Your task to perform on an android device: Open Google Chrome and click the shortcut for Amazon.com Image 0: 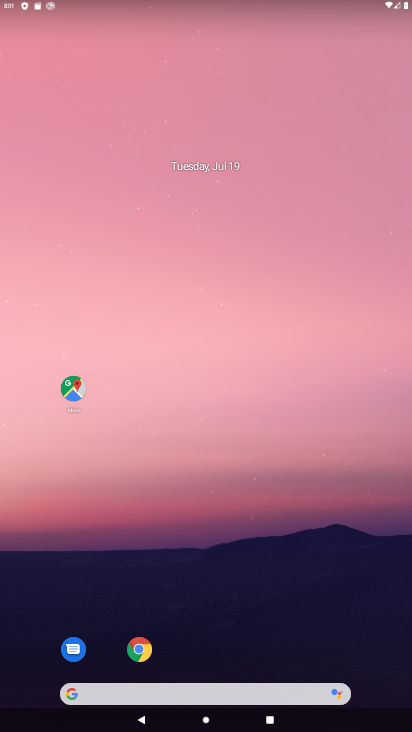
Step 0: press home button
Your task to perform on an android device: Open Google Chrome and click the shortcut for Amazon.com Image 1: 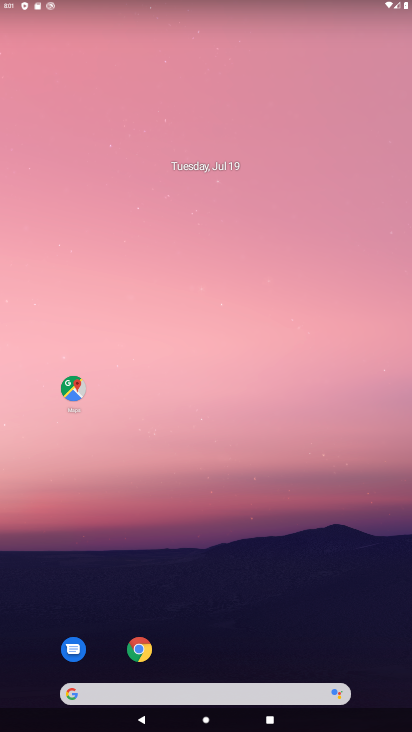
Step 1: click (135, 649)
Your task to perform on an android device: Open Google Chrome and click the shortcut for Amazon.com Image 2: 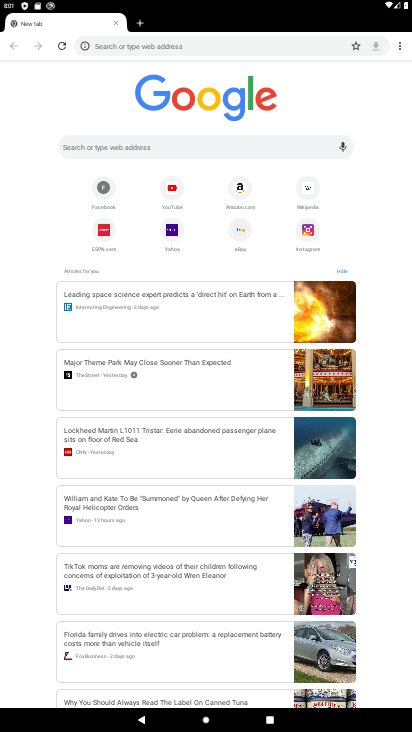
Step 2: click (238, 179)
Your task to perform on an android device: Open Google Chrome and click the shortcut for Amazon.com Image 3: 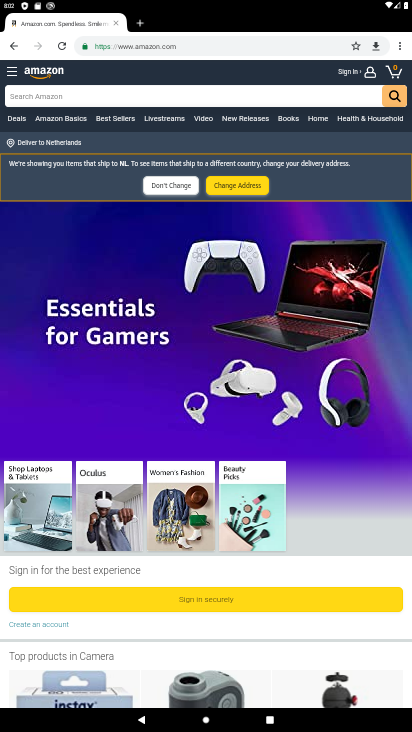
Step 3: task complete